Your task to perform on an android device: Open settings on Google Maps Image 0: 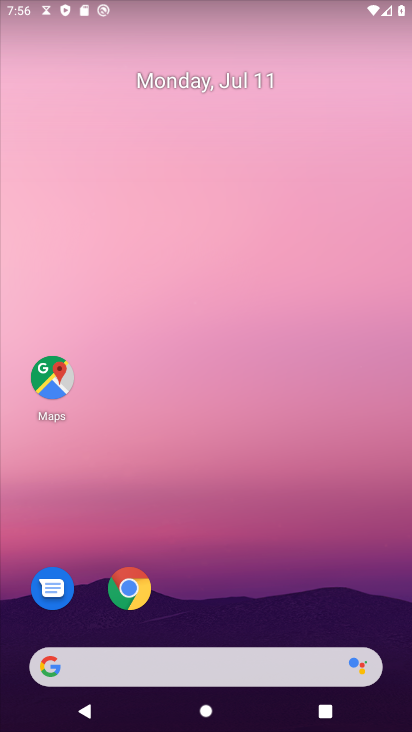
Step 0: click (49, 391)
Your task to perform on an android device: Open settings on Google Maps Image 1: 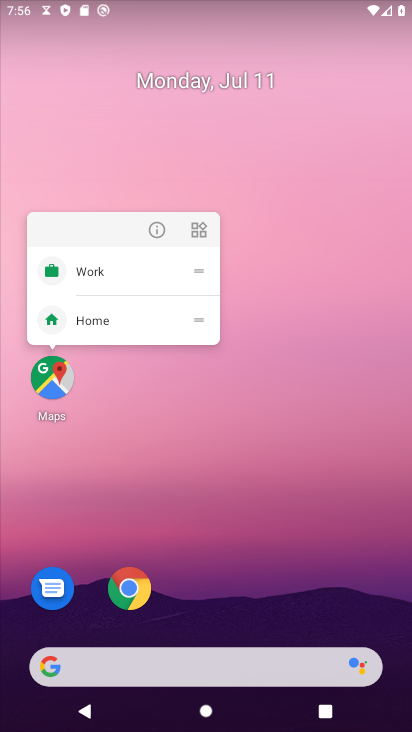
Step 1: click (53, 380)
Your task to perform on an android device: Open settings on Google Maps Image 2: 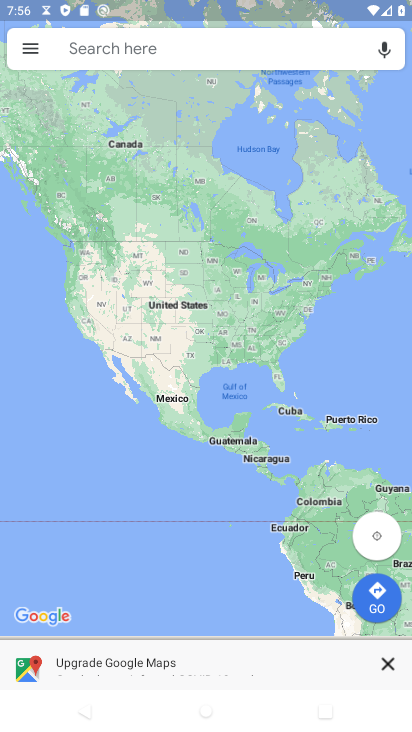
Step 2: click (24, 44)
Your task to perform on an android device: Open settings on Google Maps Image 3: 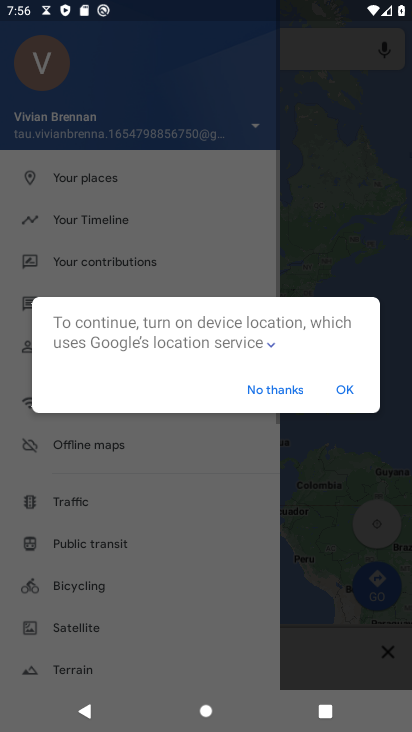
Step 3: click (279, 385)
Your task to perform on an android device: Open settings on Google Maps Image 4: 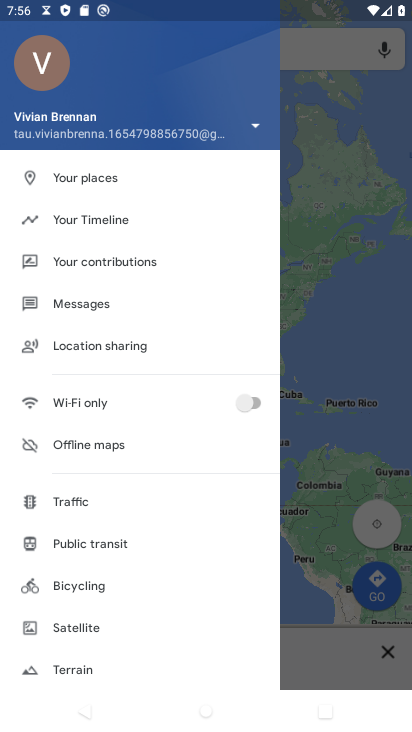
Step 4: drag from (191, 603) to (204, 219)
Your task to perform on an android device: Open settings on Google Maps Image 5: 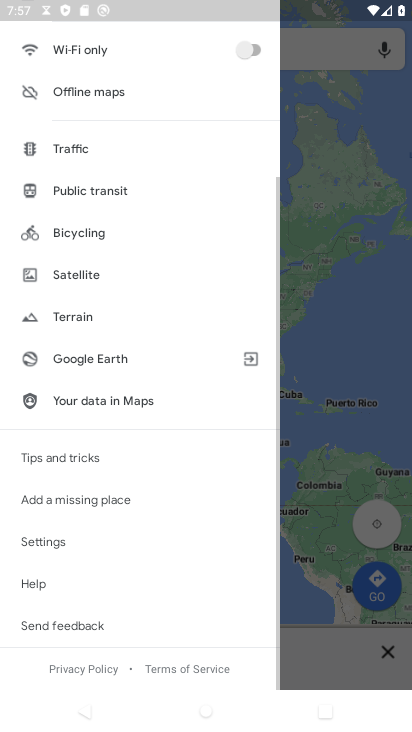
Step 5: click (55, 537)
Your task to perform on an android device: Open settings on Google Maps Image 6: 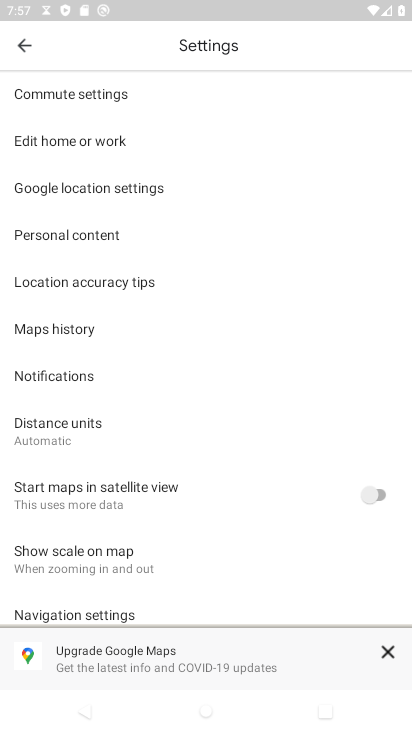
Step 6: task complete